Your task to perform on an android device: Search for seafood restaurants on Google Maps Image 0: 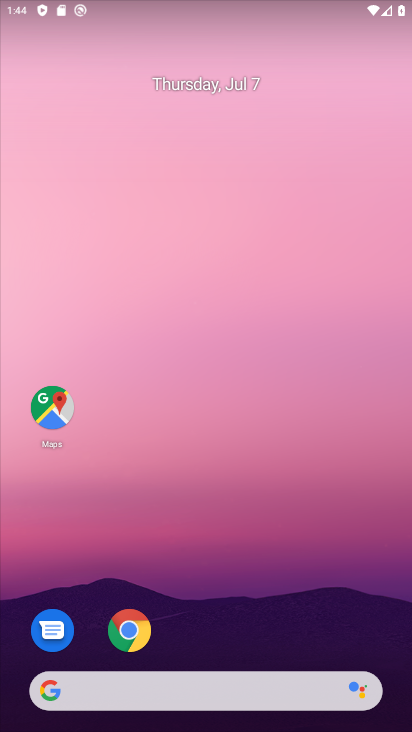
Step 0: drag from (242, 672) to (247, 50)
Your task to perform on an android device: Search for seafood restaurants on Google Maps Image 1: 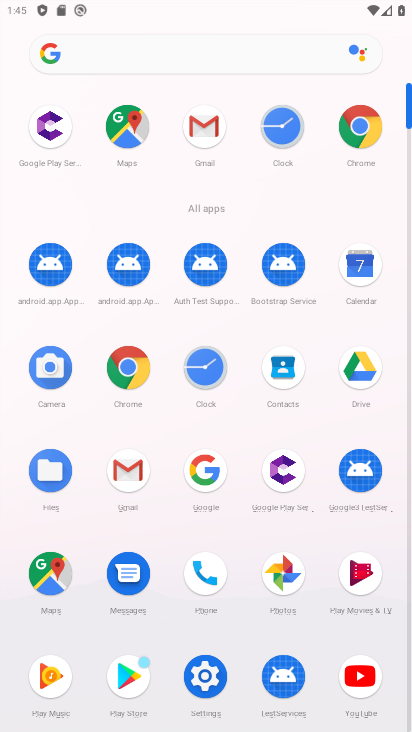
Step 1: click (42, 579)
Your task to perform on an android device: Search for seafood restaurants on Google Maps Image 2: 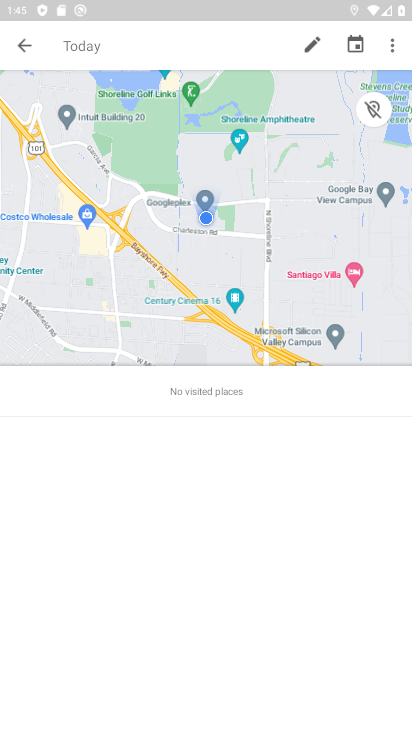
Step 2: click (35, 50)
Your task to perform on an android device: Search for seafood restaurants on Google Maps Image 3: 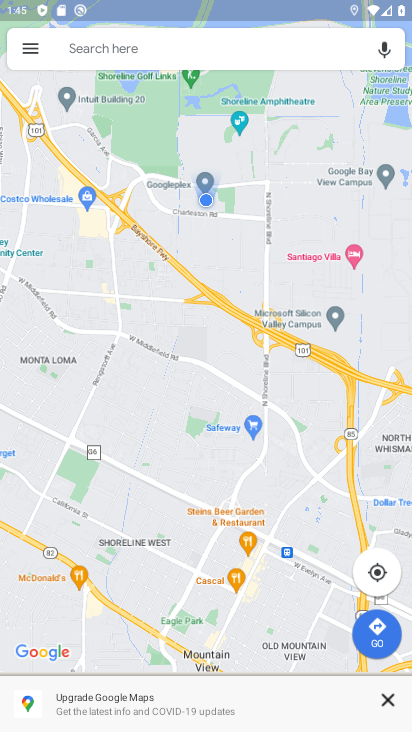
Step 3: click (173, 69)
Your task to perform on an android device: Search for seafood restaurants on Google Maps Image 4: 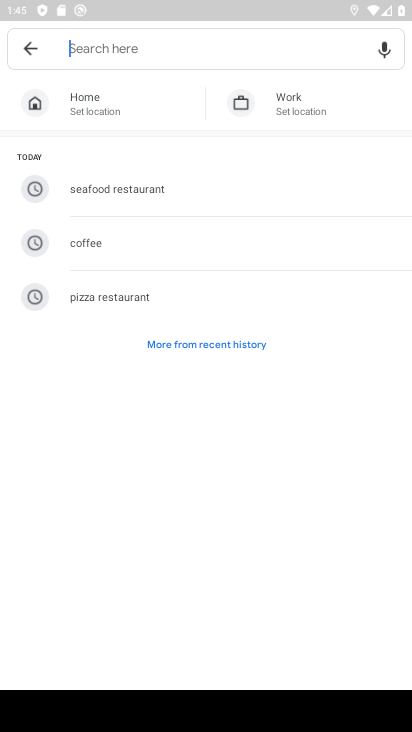
Step 4: click (95, 188)
Your task to perform on an android device: Search for seafood restaurants on Google Maps Image 5: 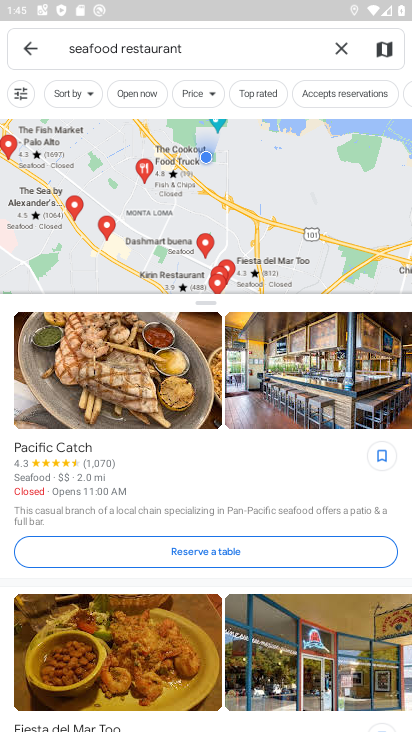
Step 5: task complete